Your task to perform on an android device: toggle priority inbox in the gmail app Image 0: 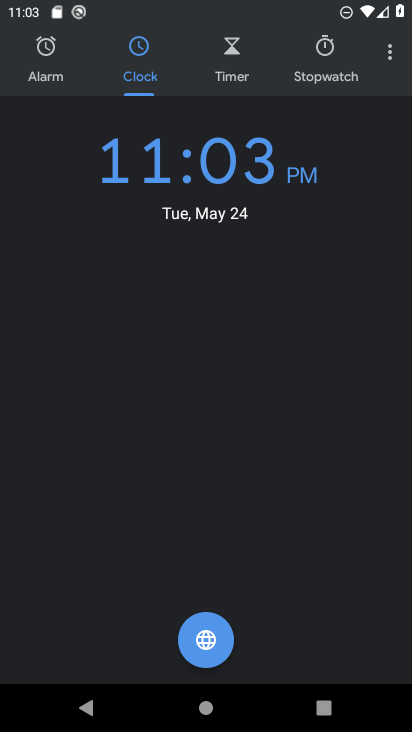
Step 0: click (388, 47)
Your task to perform on an android device: toggle priority inbox in the gmail app Image 1: 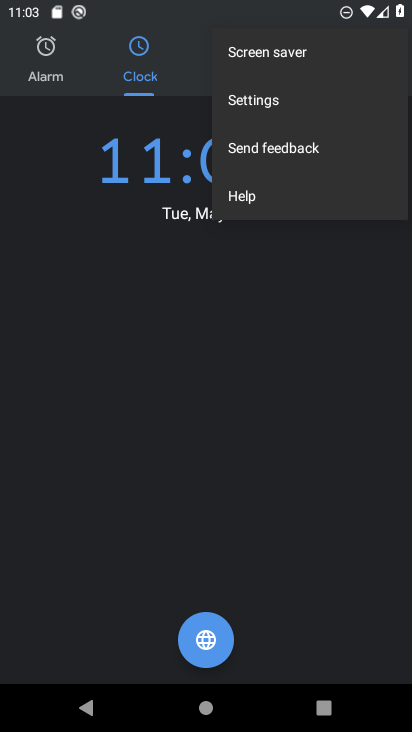
Step 1: click (248, 101)
Your task to perform on an android device: toggle priority inbox in the gmail app Image 2: 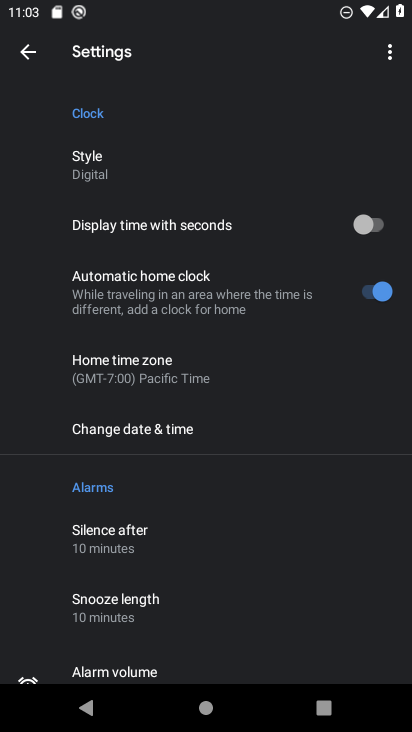
Step 2: press back button
Your task to perform on an android device: toggle priority inbox in the gmail app Image 3: 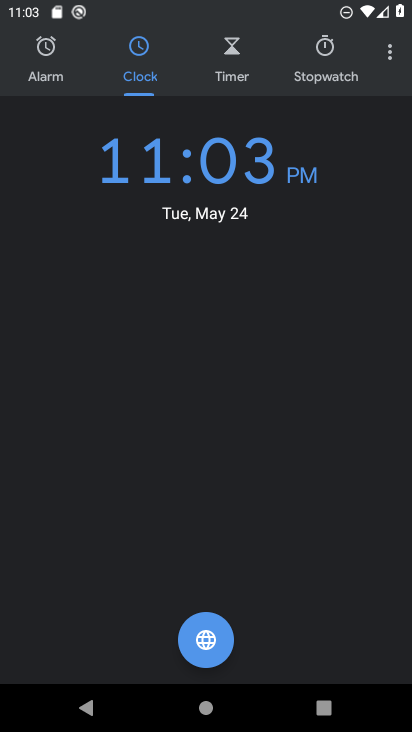
Step 3: press back button
Your task to perform on an android device: toggle priority inbox in the gmail app Image 4: 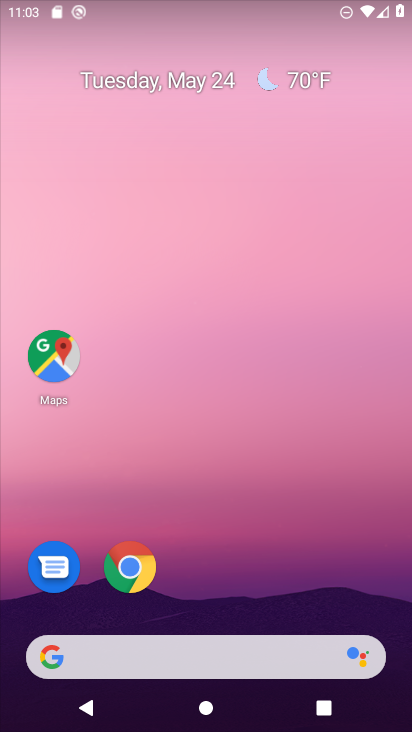
Step 4: drag from (402, 709) to (398, 366)
Your task to perform on an android device: toggle priority inbox in the gmail app Image 5: 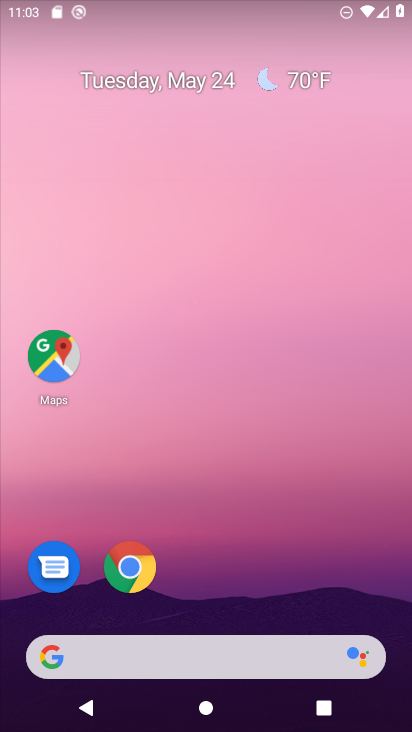
Step 5: drag from (404, 710) to (402, 138)
Your task to perform on an android device: toggle priority inbox in the gmail app Image 6: 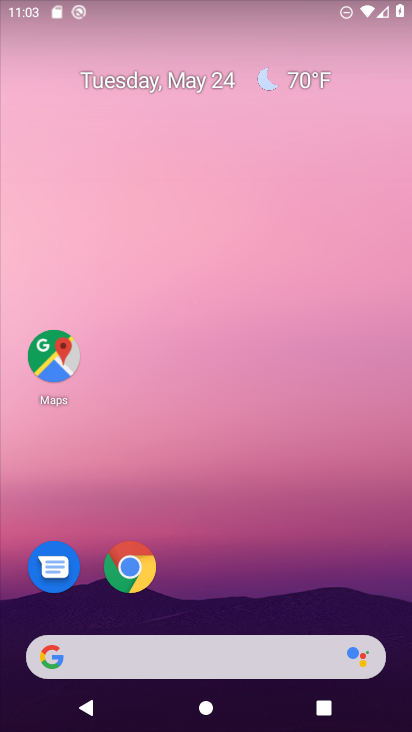
Step 6: drag from (402, 638) to (361, 60)
Your task to perform on an android device: toggle priority inbox in the gmail app Image 7: 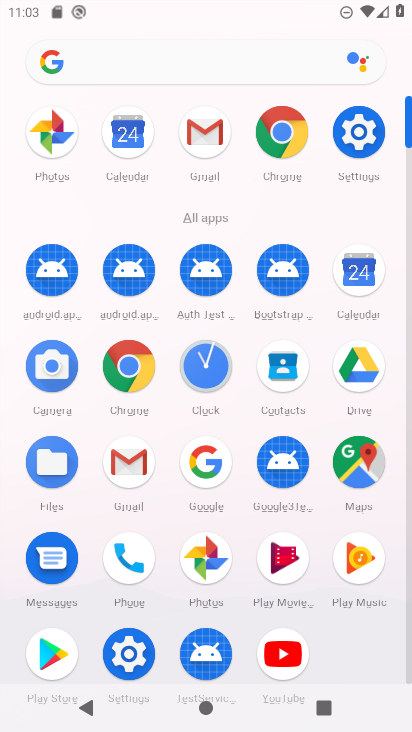
Step 7: click (135, 474)
Your task to perform on an android device: toggle priority inbox in the gmail app Image 8: 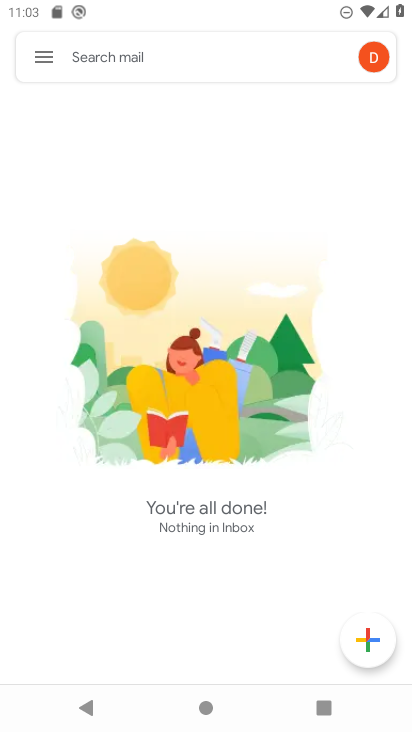
Step 8: click (38, 57)
Your task to perform on an android device: toggle priority inbox in the gmail app Image 9: 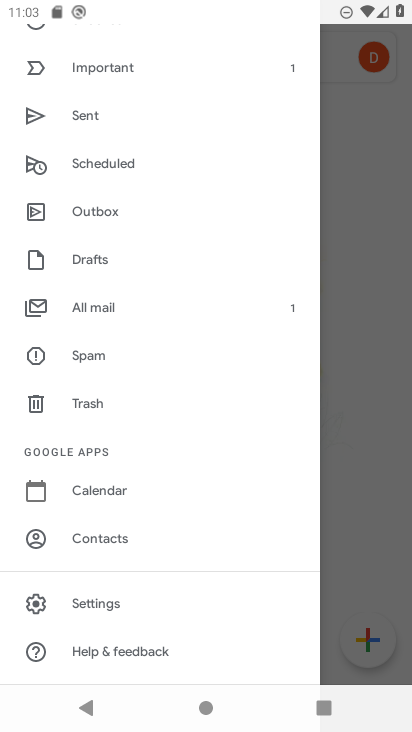
Step 9: click (89, 600)
Your task to perform on an android device: toggle priority inbox in the gmail app Image 10: 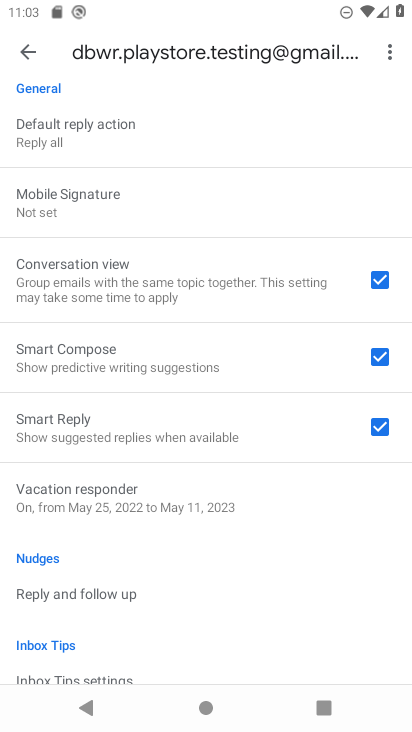
Step 10: drag from (189, 123) to (208, 578)
Your task to perform on an android device: toggle priority inbox in the gmail app Image 11: 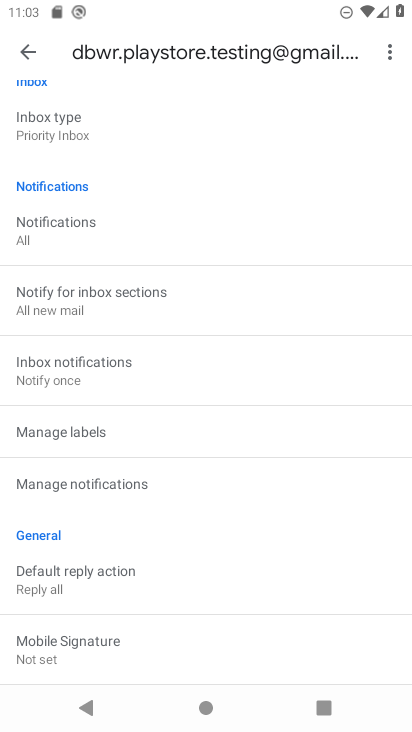
Step 11: click (47, 116)
Your task to perform on an android device: toggle priority inbox in the gmail app Image 12: 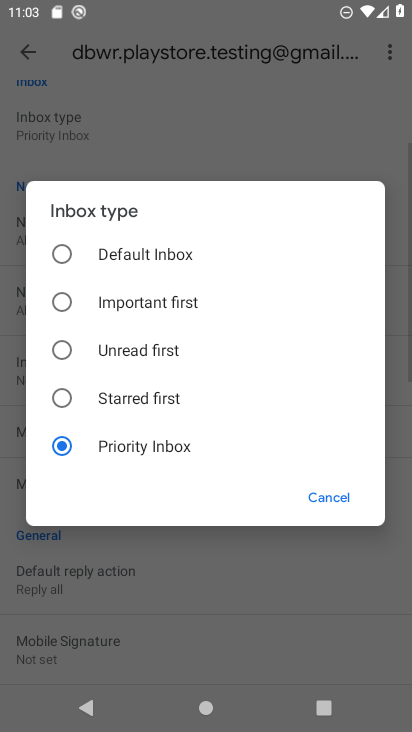
Step 12: click (64, 257)
Your task to perform on an android device: toggle priority inbox in the gmail app Image 13: 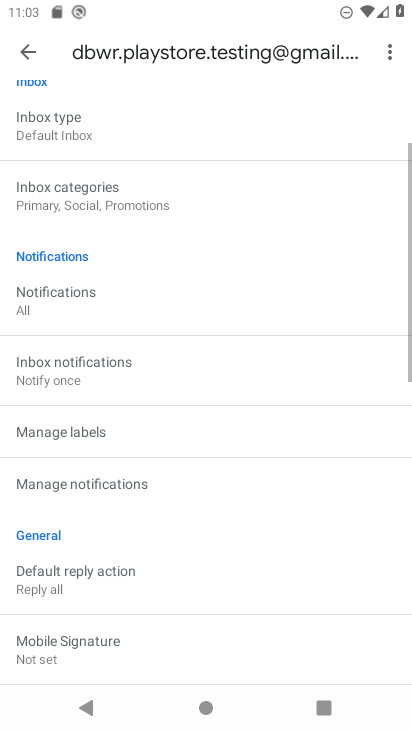
Step 13: task complete